Your task to perform on an android device: Open Google Chrome and open the bookmarks view Image 0: 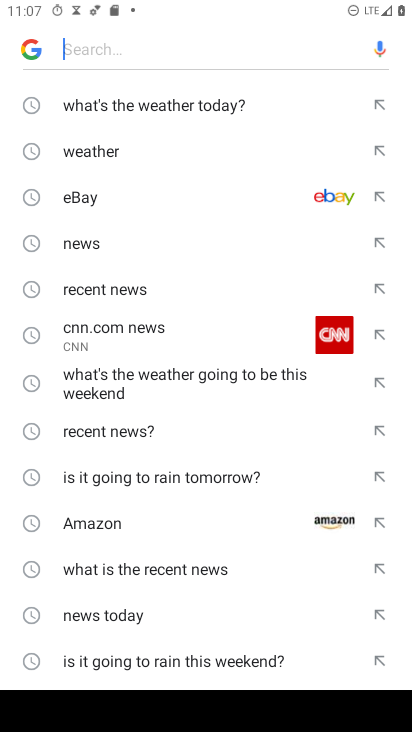
Step 0: press home button
Your task to perform on an android device: Open Google Chrome and open the bookmarks view Image 1: 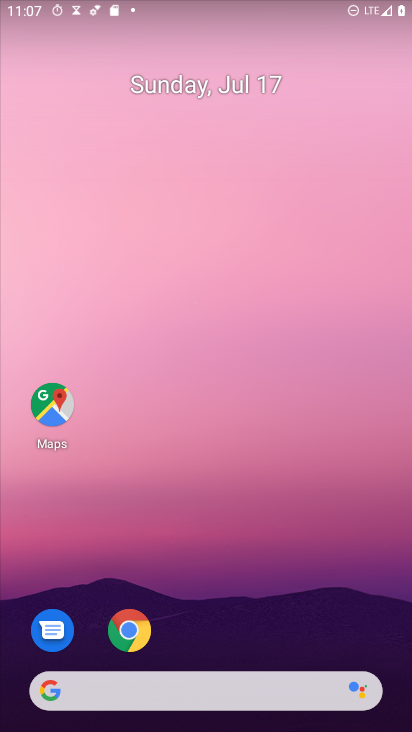
Step 1: drag from (152, 634) to (156, 129)
Your task to perform on an android device: Open Google Chrome and open the bookmarks view Image 2: 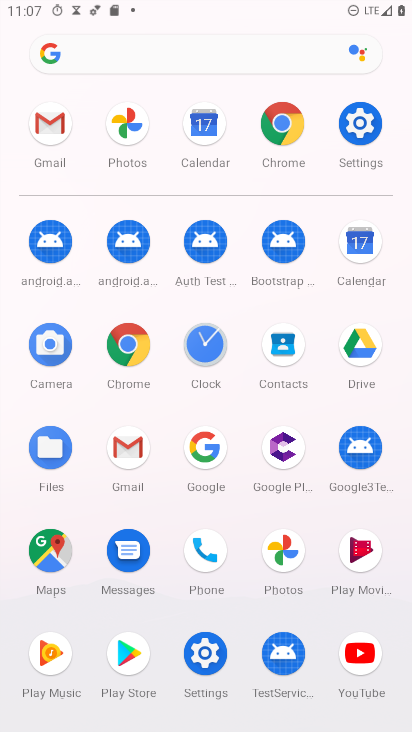
Step 2: click (114, 348)
Your task to perform on an android device: Open Google Chrome and open the bookmarks view Image 3: 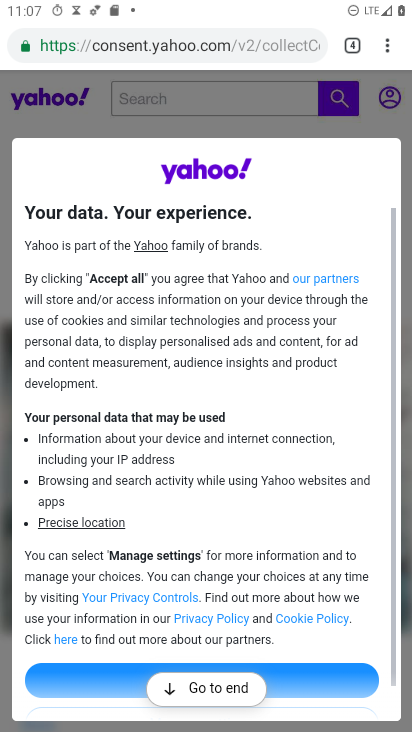
Step 3: click (384, 39)
Your task to perform on an android device: Open Google Chrome and open the bookmarks view Image 4: 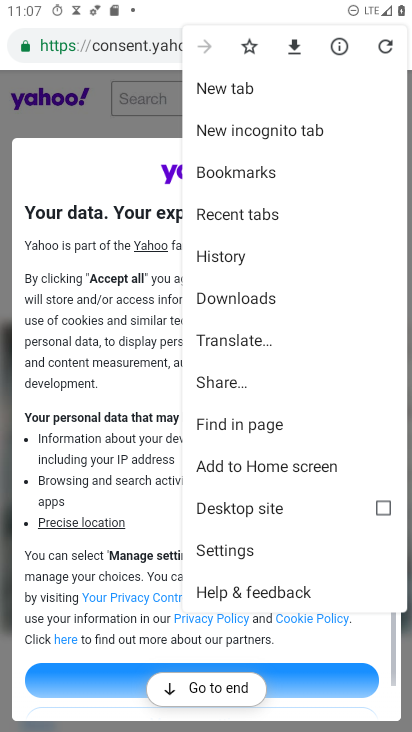
Step 4: click (254, 176)
Your task to perform on an android device: Open Google Chrome and open the bookmarks view Image 5: 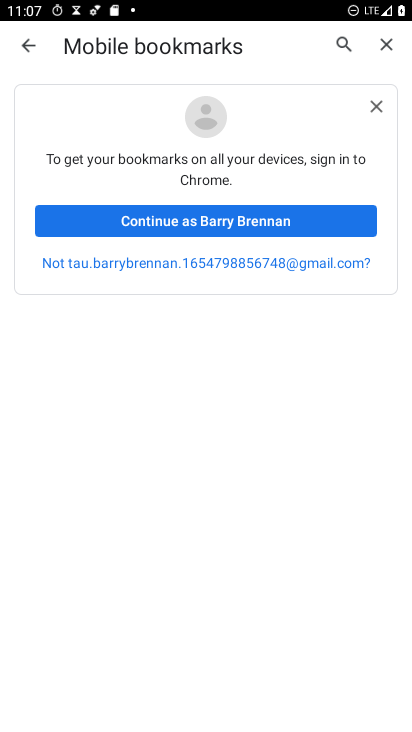
Step 5: task complete